Your task to perform on an android device: move a message to another label in the gmail app Image 0: 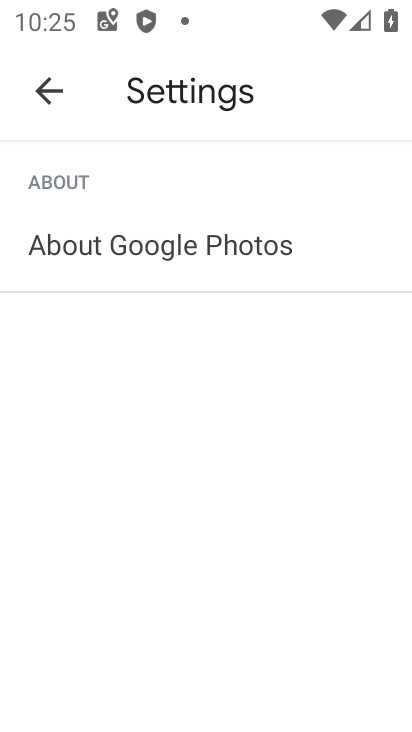
Step 0: press home button
Your task to perform on an android device: move a message to another label in the gmail app Image 1: 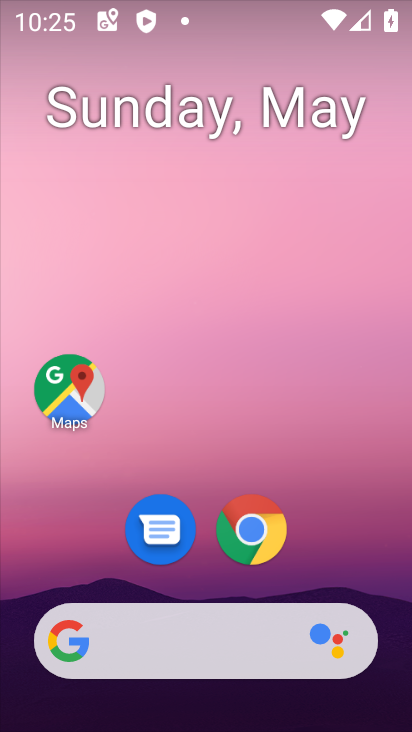
Step 1: drag from (204, 650) to (69, 23)
Your task to perform on an android device: move a message to another label in the gmail app Image 2: 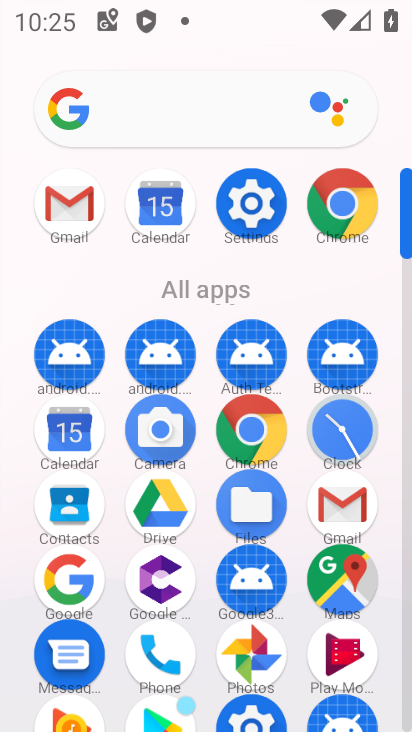
Step 2: click (71, 218)
Your task to perform on an android device: move a message to another label in the gmail app Image 3: 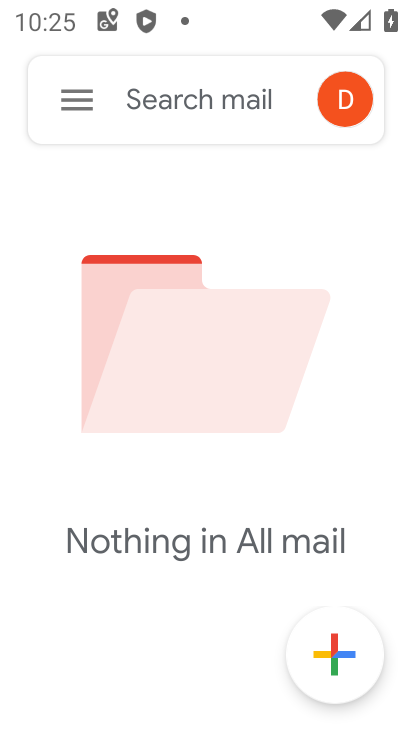
Step 3: click (80, 97)
Your task to perform on an android device: move a message to another label in the gmail app Image 4: 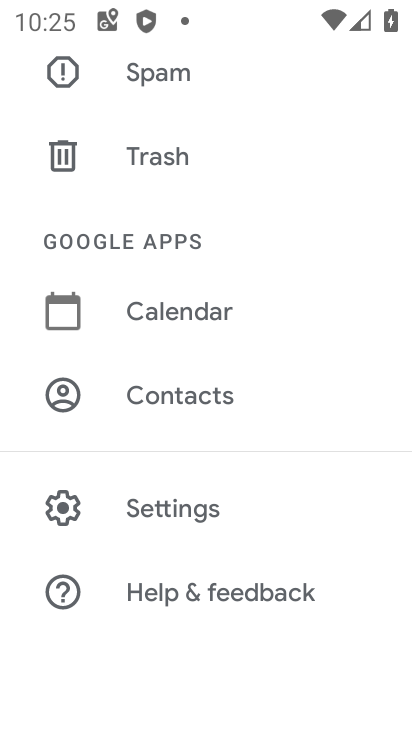
Step 4: drag from (137, 108) to (144, 521)
Your task to perform on an android device: move a message to another label in the gmail app Image 5: 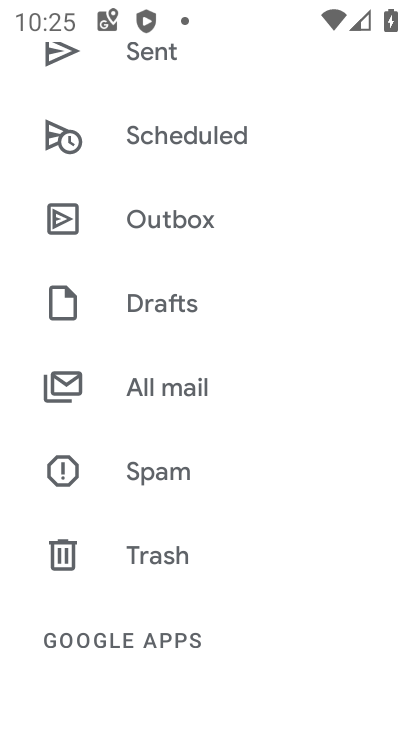
Step 5: click (140, 376)
Your task to perform on an android device: move a message to another label in the gmail app Image 6: 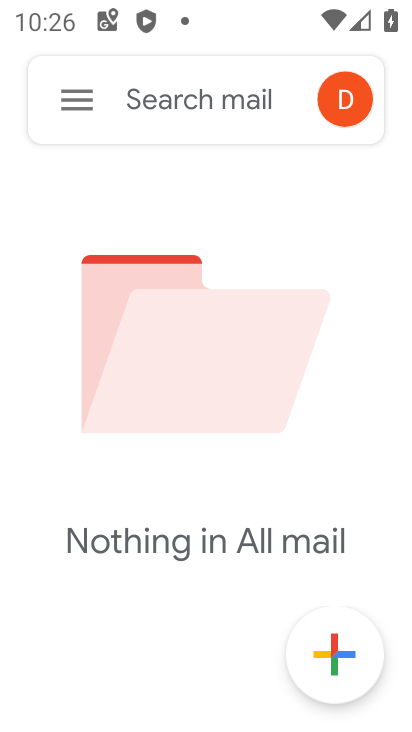
Step 6: click (82, 104)
Your task to perform on an android device: move a message to another label in the gmail app Image 7: 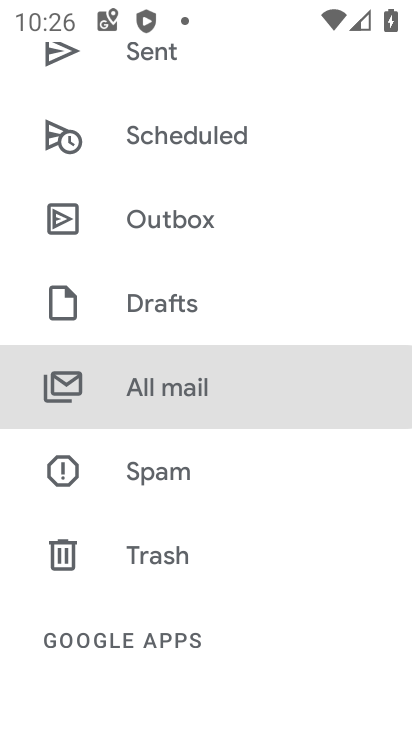
Step 7: click (177, 402)
Your task to perform on an android device: move a message to another label in the gmail app Image 8: 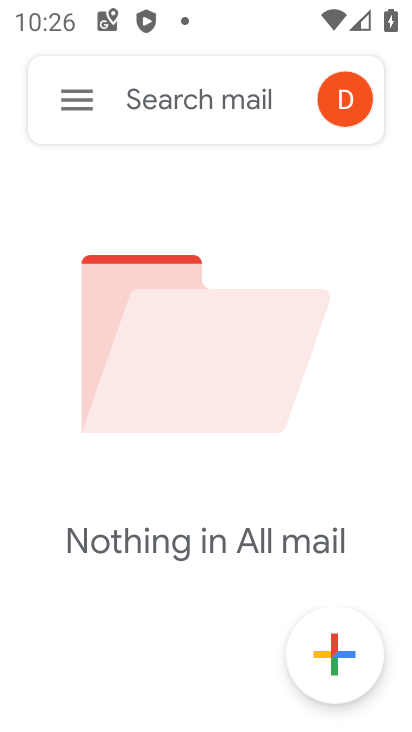
Step 8: task complete